Your task to perform on an android device: Open my contact list Image 0: 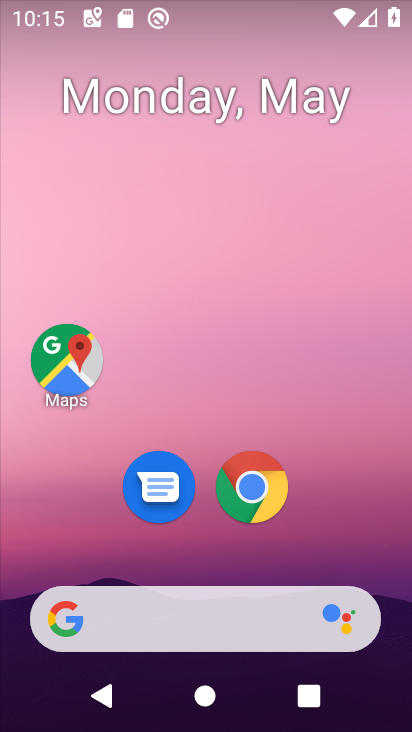
Step 0: drag from (320, 505) to (329, 73)
Your task to perform on an android device: Open my contact list Image 1: 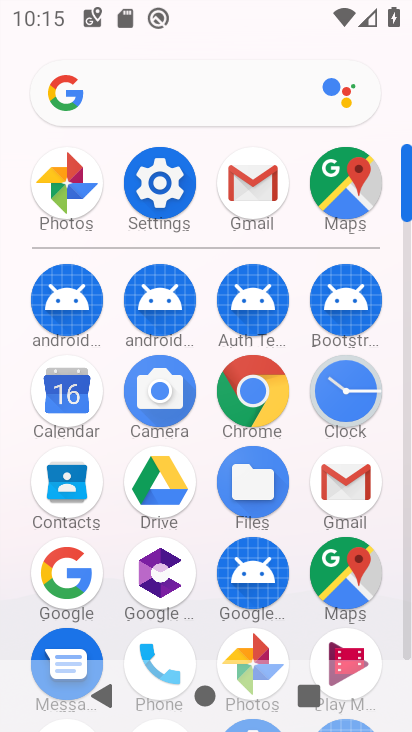
Step 1: click (70, 483)
Your task to perform on an android device: Open my contact list Image 2: 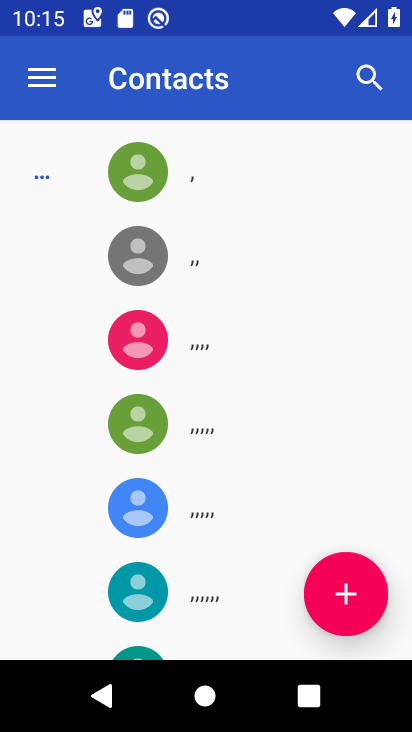
Step 2: task complete